Your task to perform on an android device: Go to Yahoo.com Image 0: 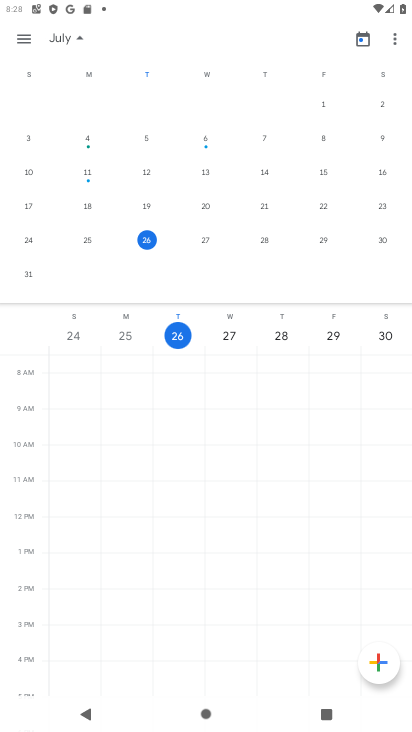
Step 0: press home button
Your task to perform on an android device: Go to Yahoo.com Image 1: 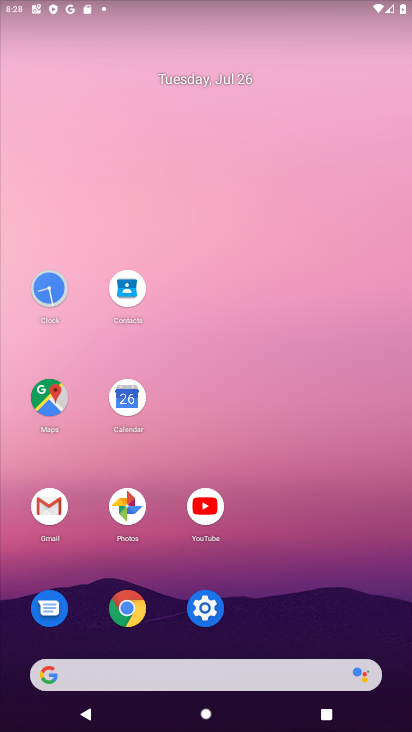
Step 1: click (125, 614)
Your task to perform on an android device: Go to Yahoo.com Image 2: 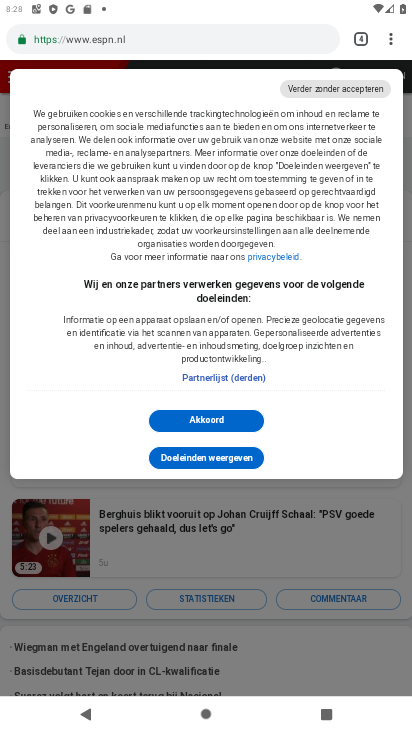
Step 2: click (391, 39)
Your task to perform on an android device: Go to Yahoo.com Image 3: 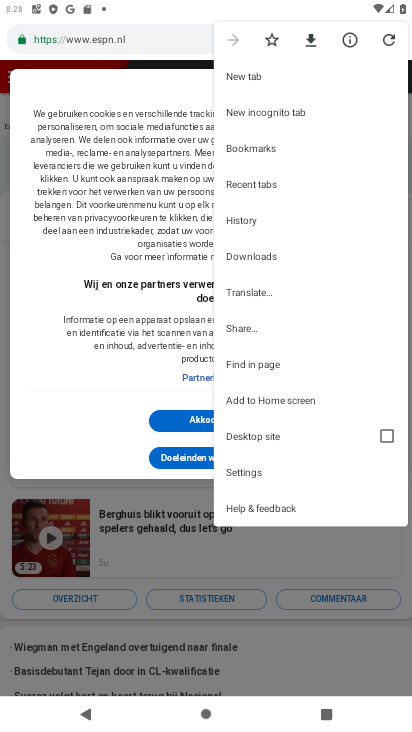
Step 3: click (235, 76)
Your task to perform on an android device: Go to Yahoo.com Image 4: 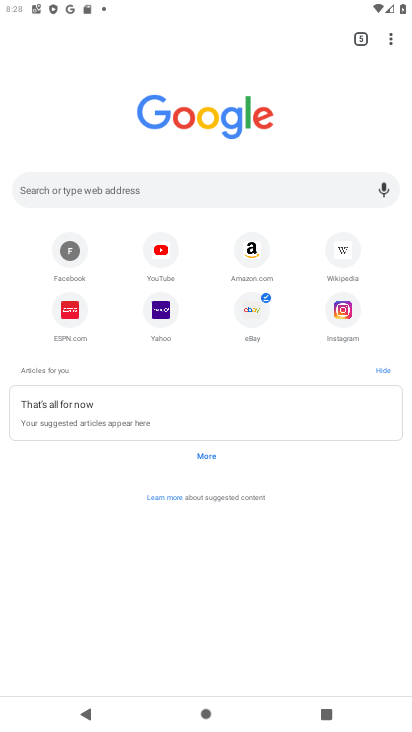
Step 4: click (156, 323)
Your task to perform on an android device: Go to Yahoo.com Image 5: 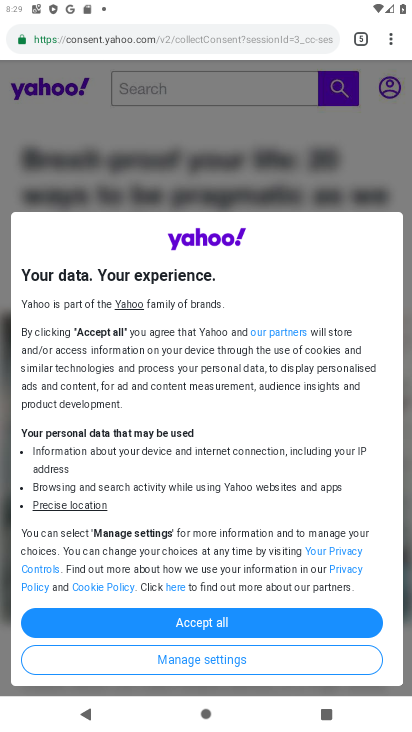
Step 5: click (211, 624)
Your task to perform on an android device: Go to Yahoo.com Image 6: 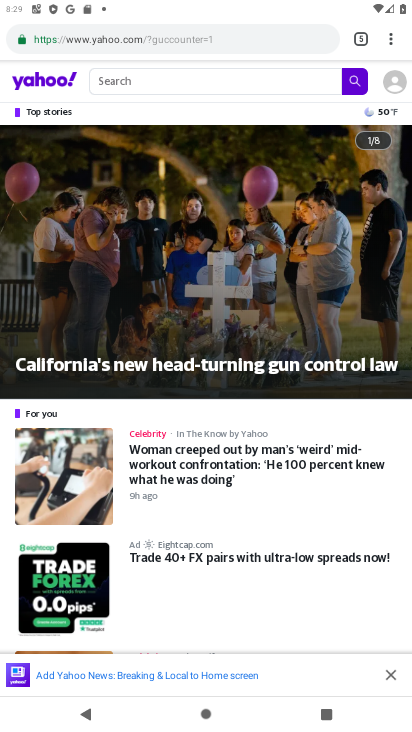
Step 6: task complete